Your task to perform on an android device: What's the weather going to be tomorrow? Image 0: 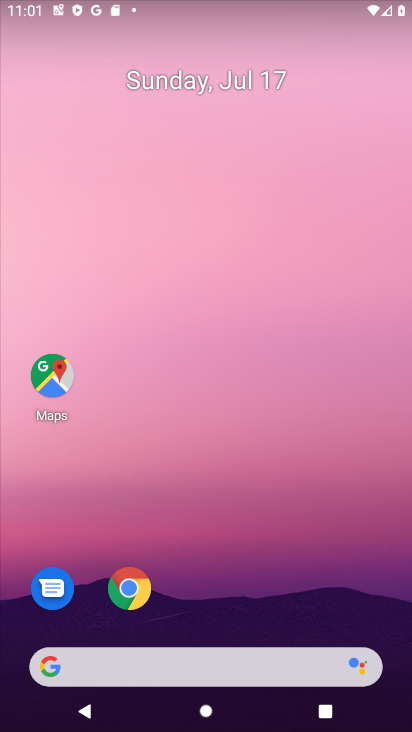
Step 0: press home button
Your task to perform on an android device: What's the weather going to be tomorrow? Image 1: 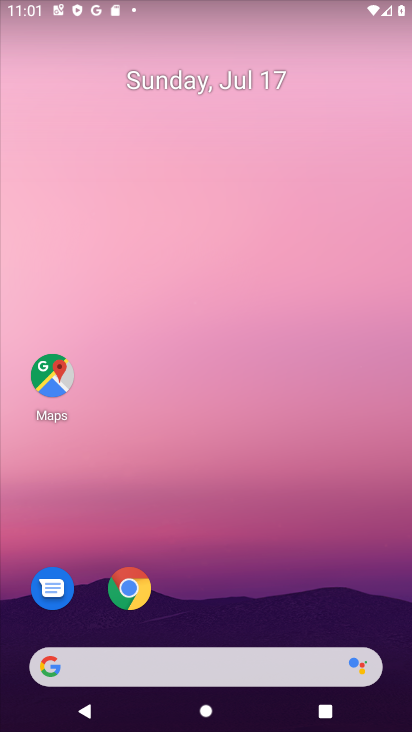
Step 1: click (386, 663)
Your task to perform on an android device: What's the weather going to be tomorrow? Image 2: 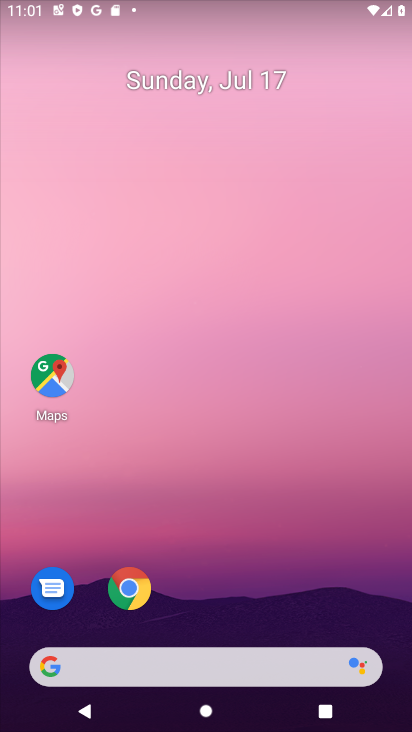
Step 2: press home button
Your task to perform on an android device: What's the weather going to be tomorrow? Image 3: 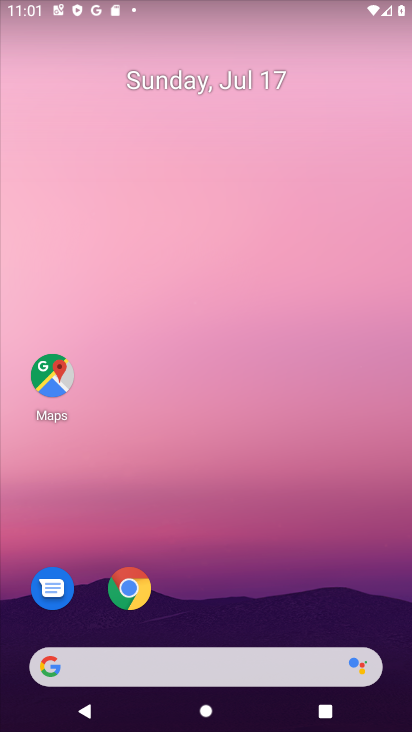
Step 3: click (146, 661)
Your task to perform on an android device: What's the weather going to be tomorrow? Image 4: 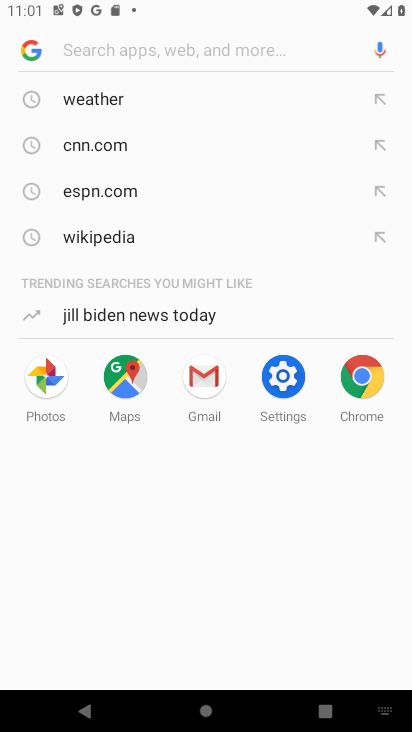
Step 4: click (132, 95)
Your task to perform on an android device: What's the weather going to be tomorrow? Image 5: 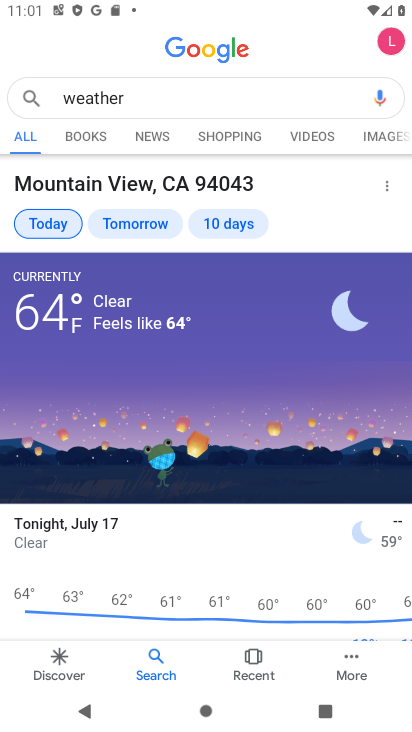
Step 5: click (133, 223)
Your task to perform on an android device: What's the weather going to be tomorrow? Image 6: 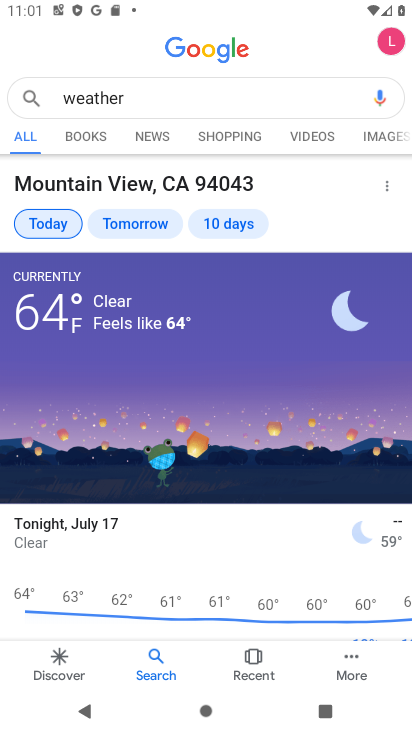
Step 6: click (149, 220)
Your task to perform on an android device: What's the weather going to be tomorrow? Image 7: 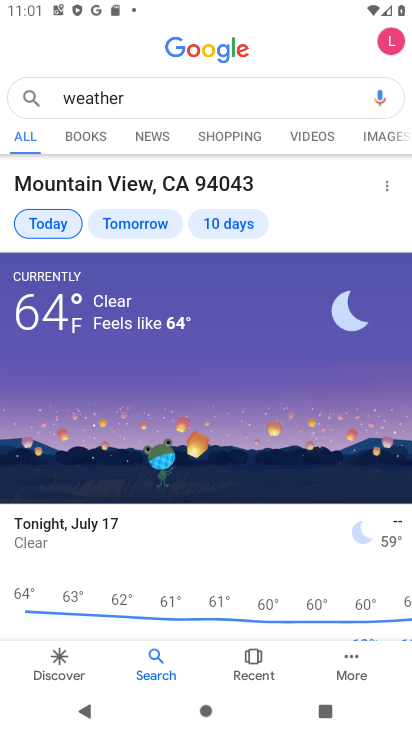
Step 7: click (136, 224)
Your task to perform on an android device: What's the weather going to be tomorrow? Image 8: 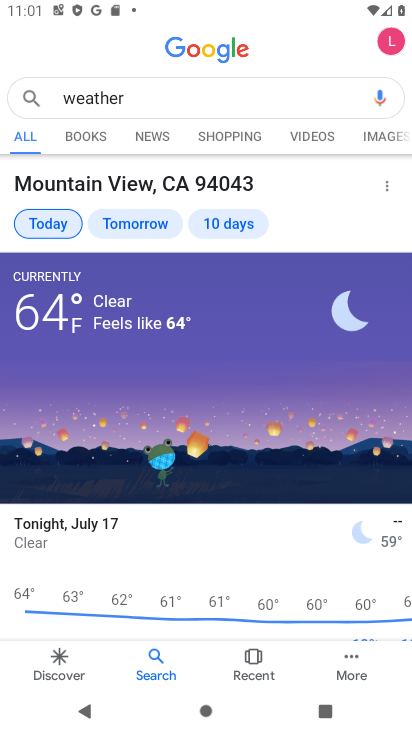
Step 8: click (136, 224)
Your task to perform on an android device: What's the weather going to be tomorrow? Image 9: 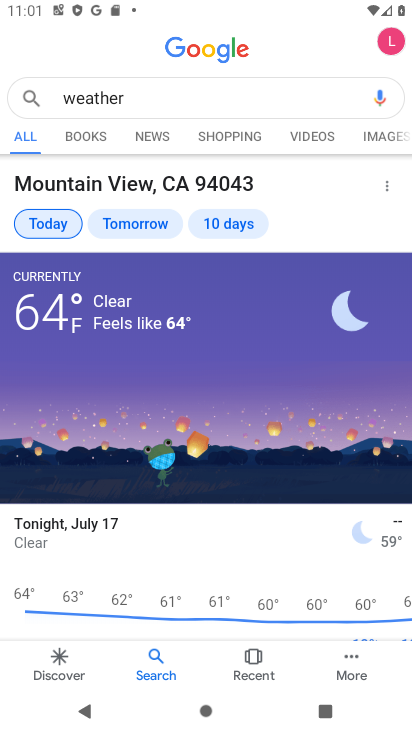
Step 9: click (136, 224)
Your task to perform on an android device: What's the weather going to be tomorrow? Image 10: 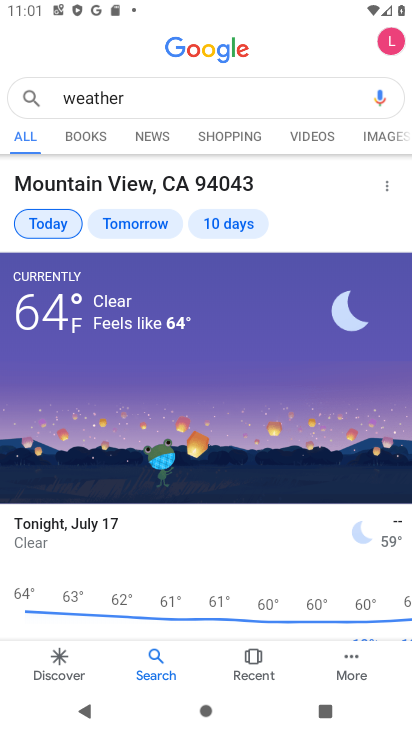
Step 10: click (136, 224)
Your task to perform on an android device: What's the weather going to be tomorrow? Image 11: 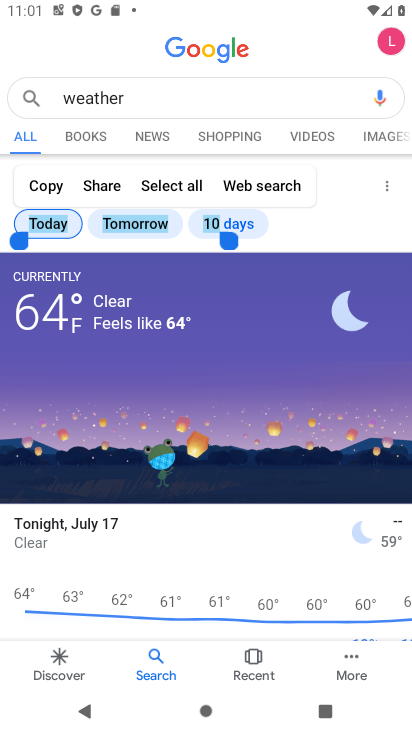
Step 11: drag from (183, 533) to (168, 285)
Your task to perform on an android device: What's the weather going to be tomorrow? Image 12: 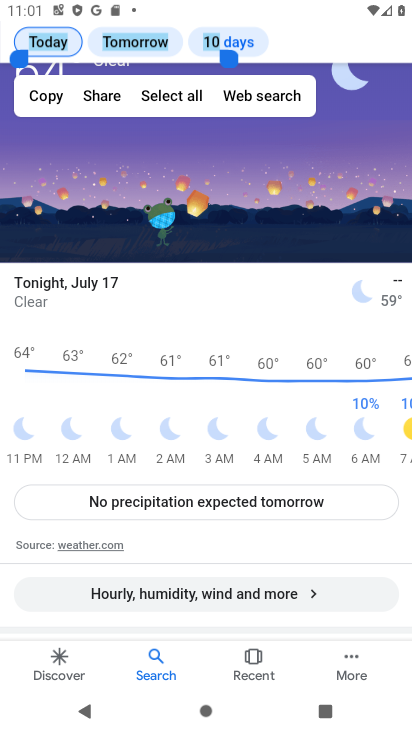
Step 12: drag from (332, 422) to (14, 464)
Your task to perform on an android device: What's the weather going to be tomorrow? Image 13: 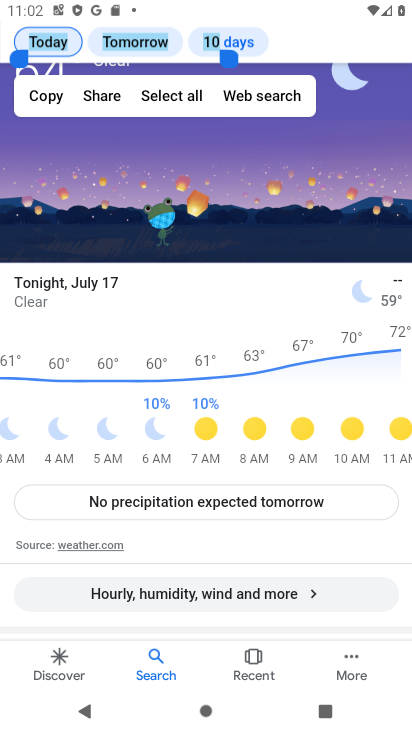
Step 13: click (130, 41)
Your task to perform on an android device: What's the weather going to be tomorrow? Image 14: 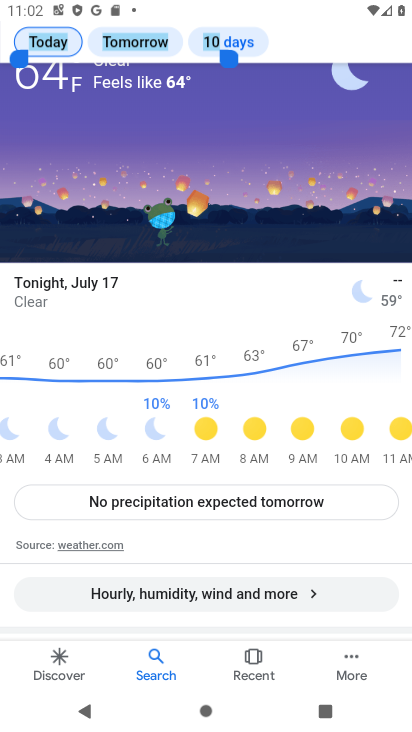
Step 14: click (285, 45)
Your task to perform on an android device: What's the weather going to be tomorrow? Image 15: 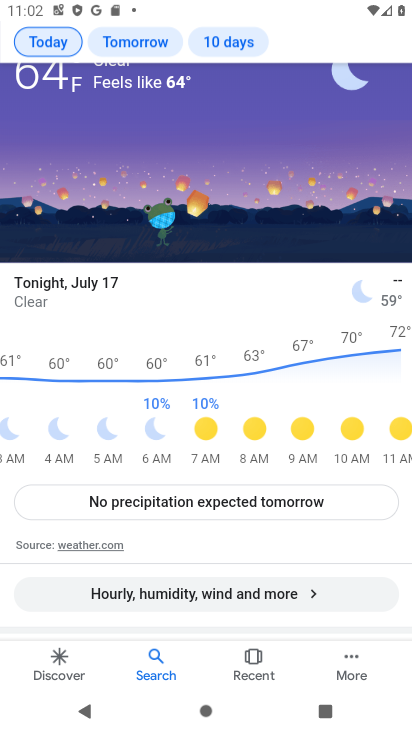
Step 15: click (131, 44)
Your task to perform on an android device: What's the weather going to be tomorrow? Image 16: 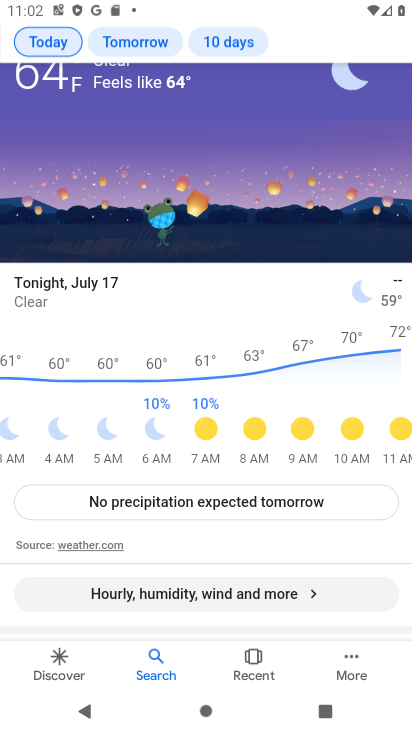
Step 16: click (138, 40)
Your task to perform on an android device: What's the weather going to be tomorrow? Image 17: 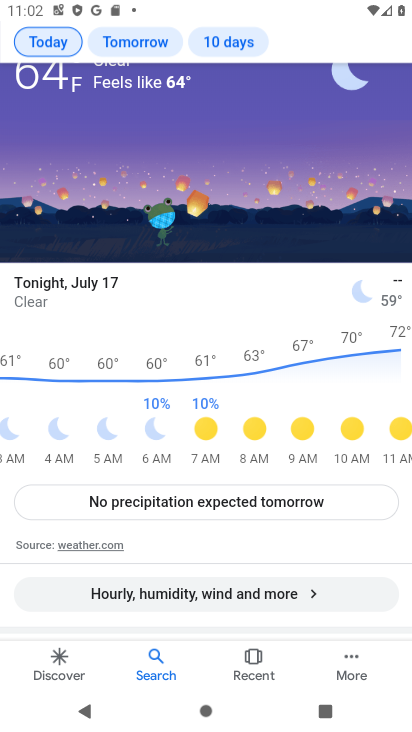
Step 17: click (179, 147)
Your task to perform on an android device: What's the weather going to be tomorrow? Image 18: 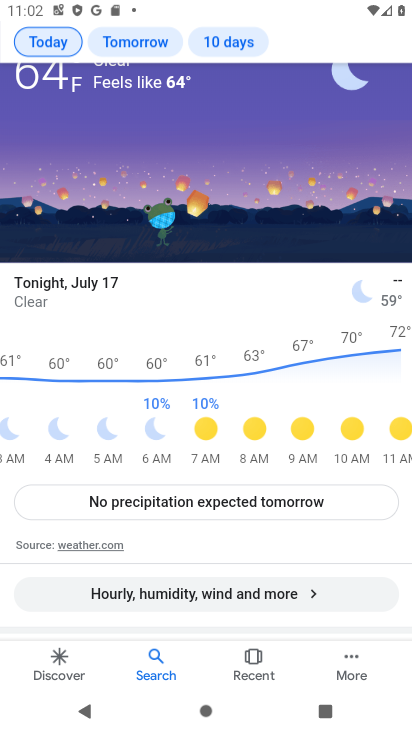
Step 18: task complete